Your task to perform on an android device: Open display settings Image 0: 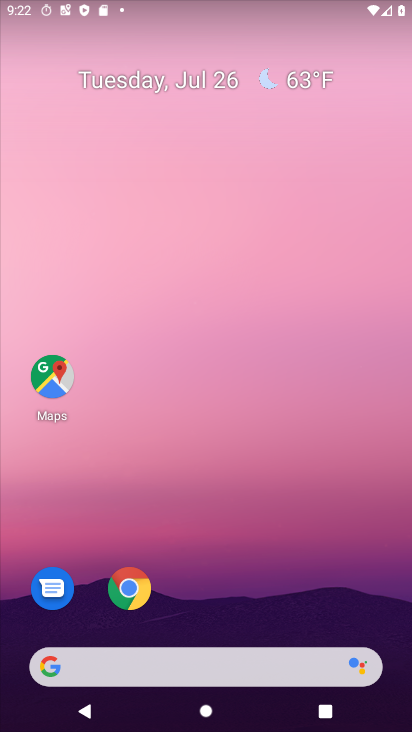
Step 0: drag from (216, 584) to (173, 37)
Your task to perform on an android device: Open display settings Image 1: 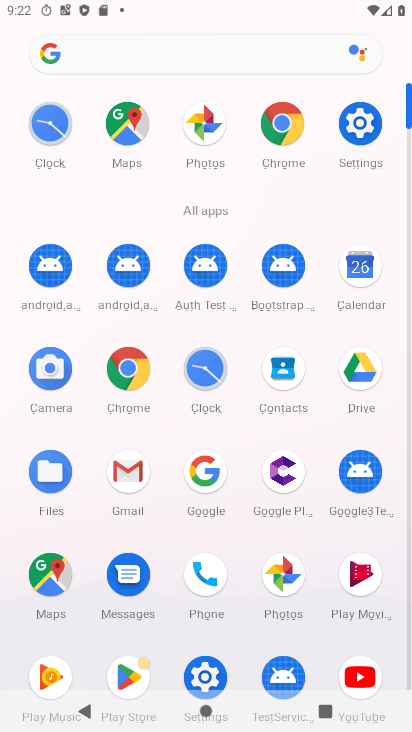
Step 1: click (361, 147)
Your task to perform on an android device: Open display settings Image 2: 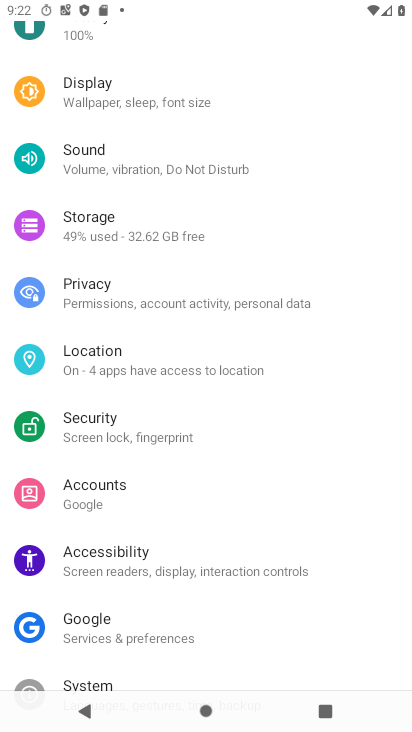
Step 2: click (96, 102)
Your task to perform on an android device: Open display settings Image 3: 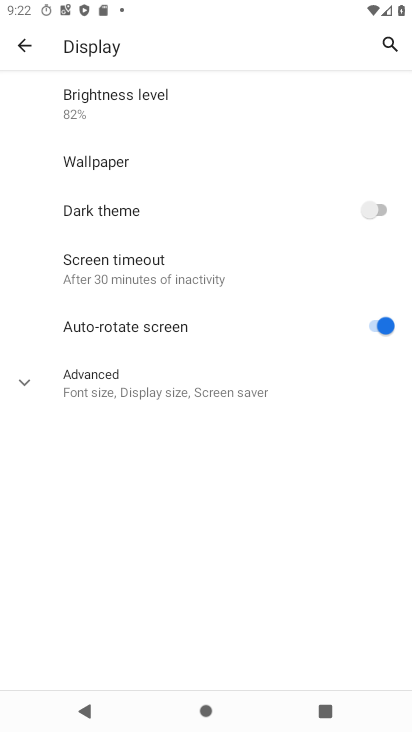
Step 3: task complete